Your task to perform on an android device: Show the shopping cart on walmart. Image 0: 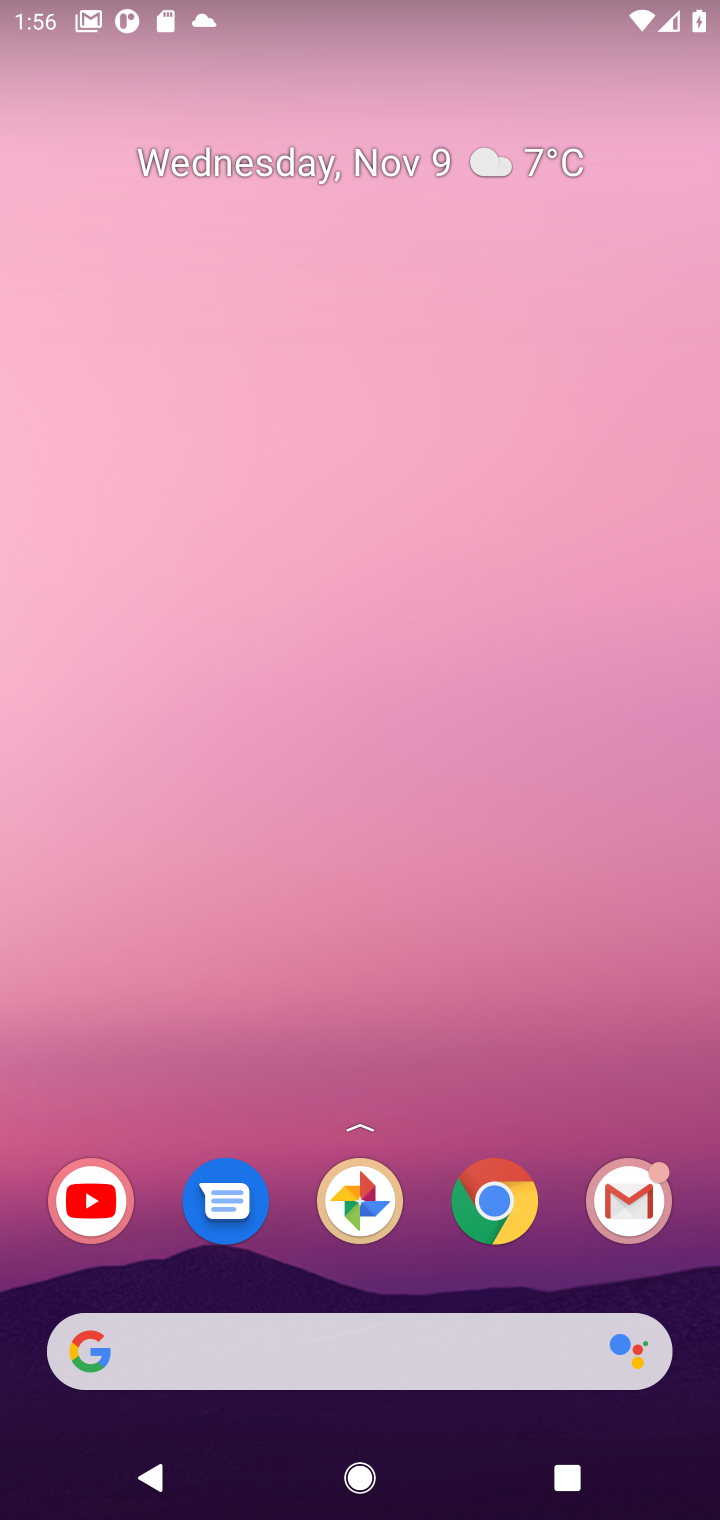
Step 0: click (302, 1347)
Your task to perform on an android device: Show the shopping cart on walmart. Image 1: 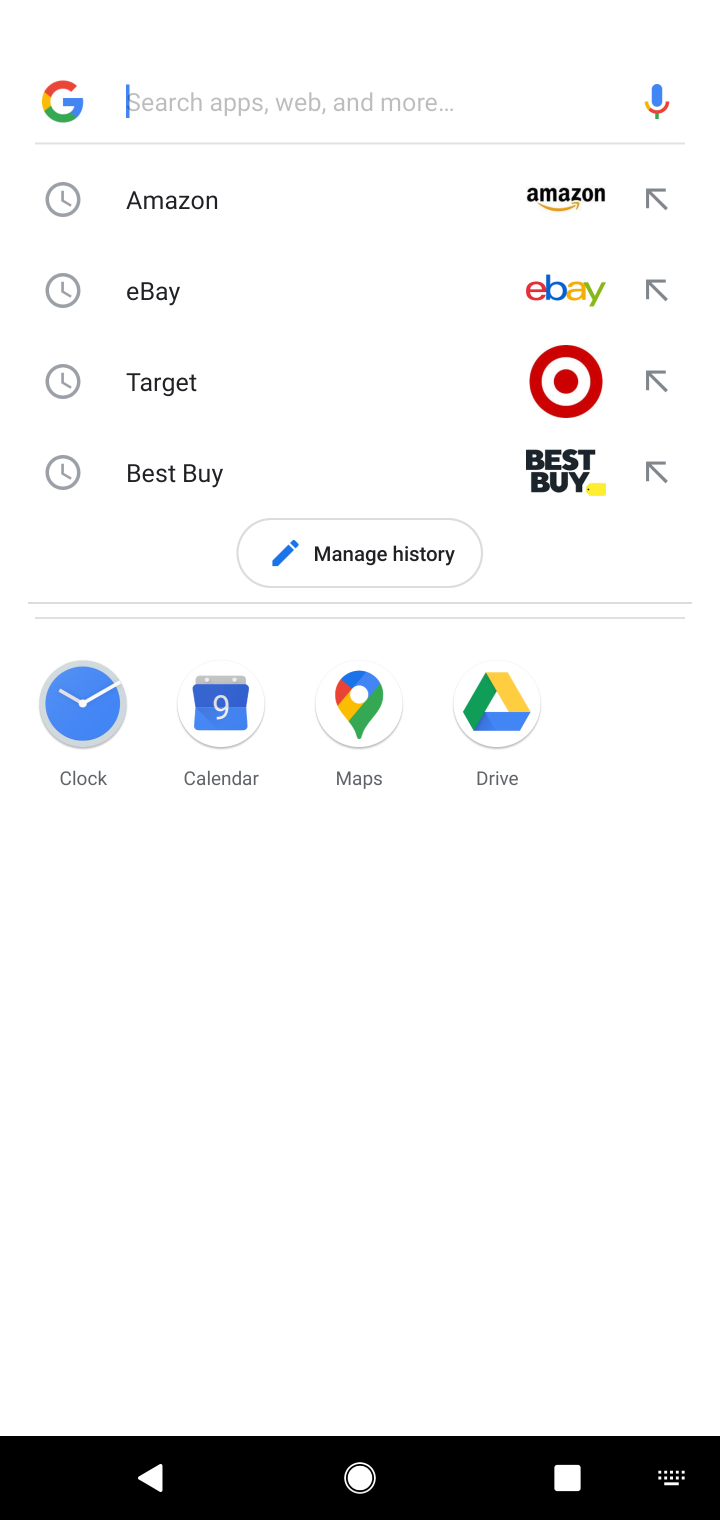
Step 1: type "walmart"
Your task to perform on an android device: Show the shopping cart on walmart. Image 2: 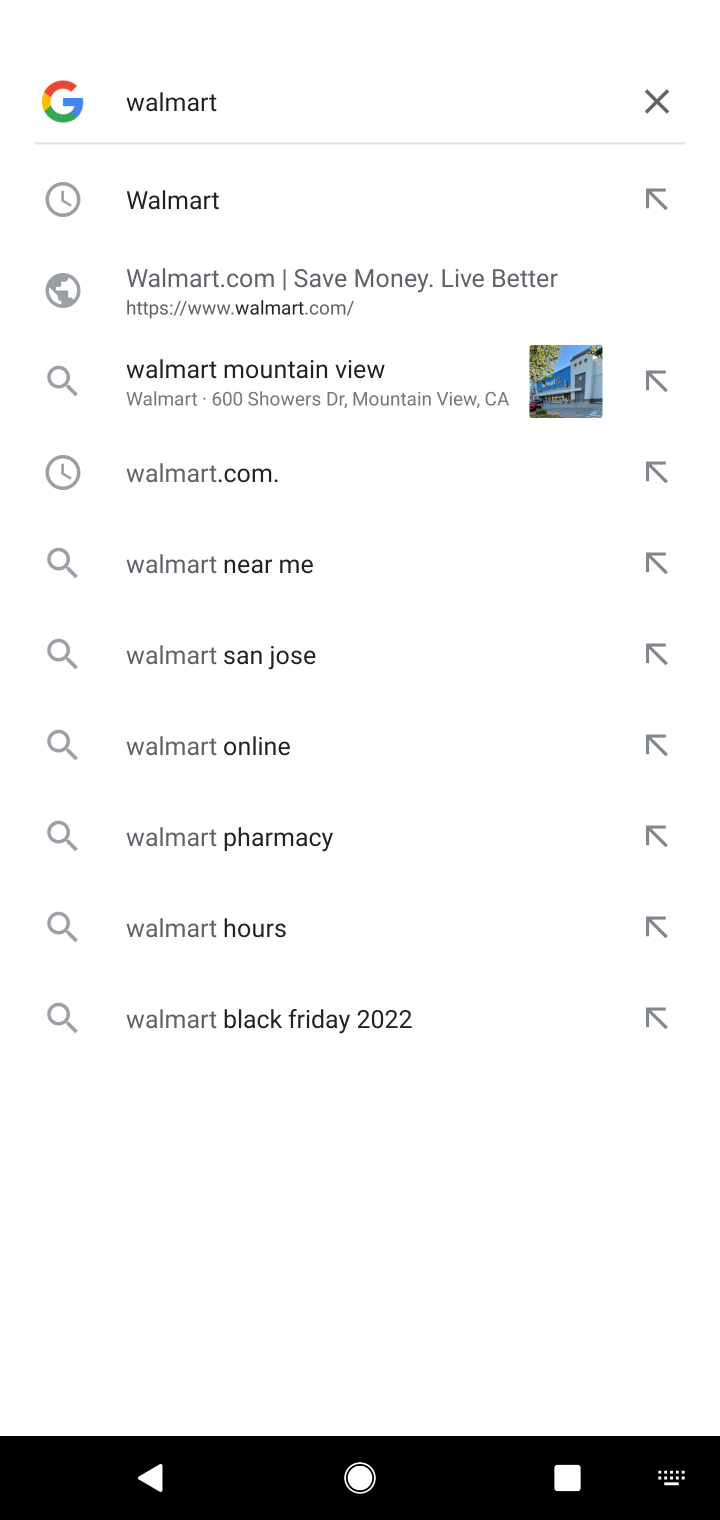
Step 2: click (173, 265)
Your task to perform on an android device: Show the shopping cart on walmart. Image 3: 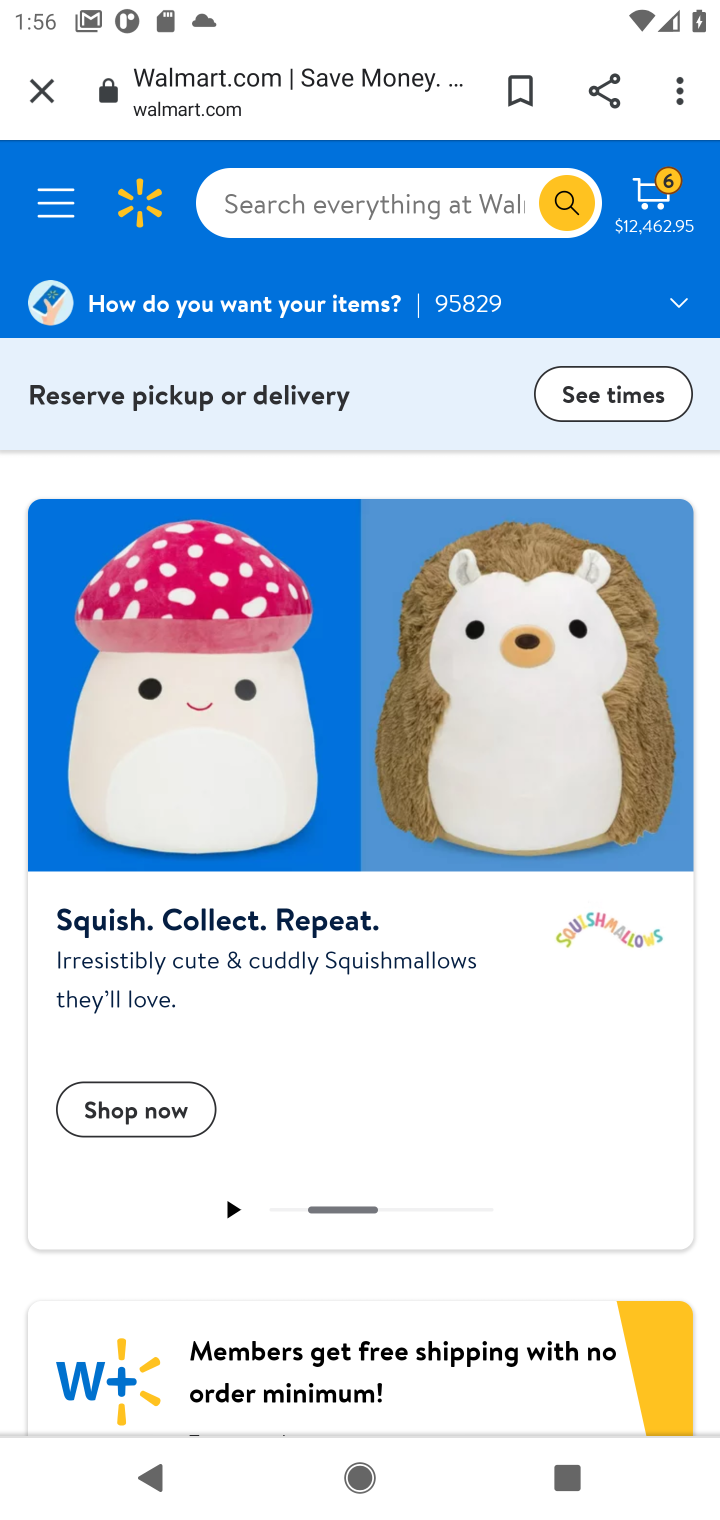
Step 3: click (656, 197)
Your task to perform on an android device: Show the shopping cart on walmart. Image 4: 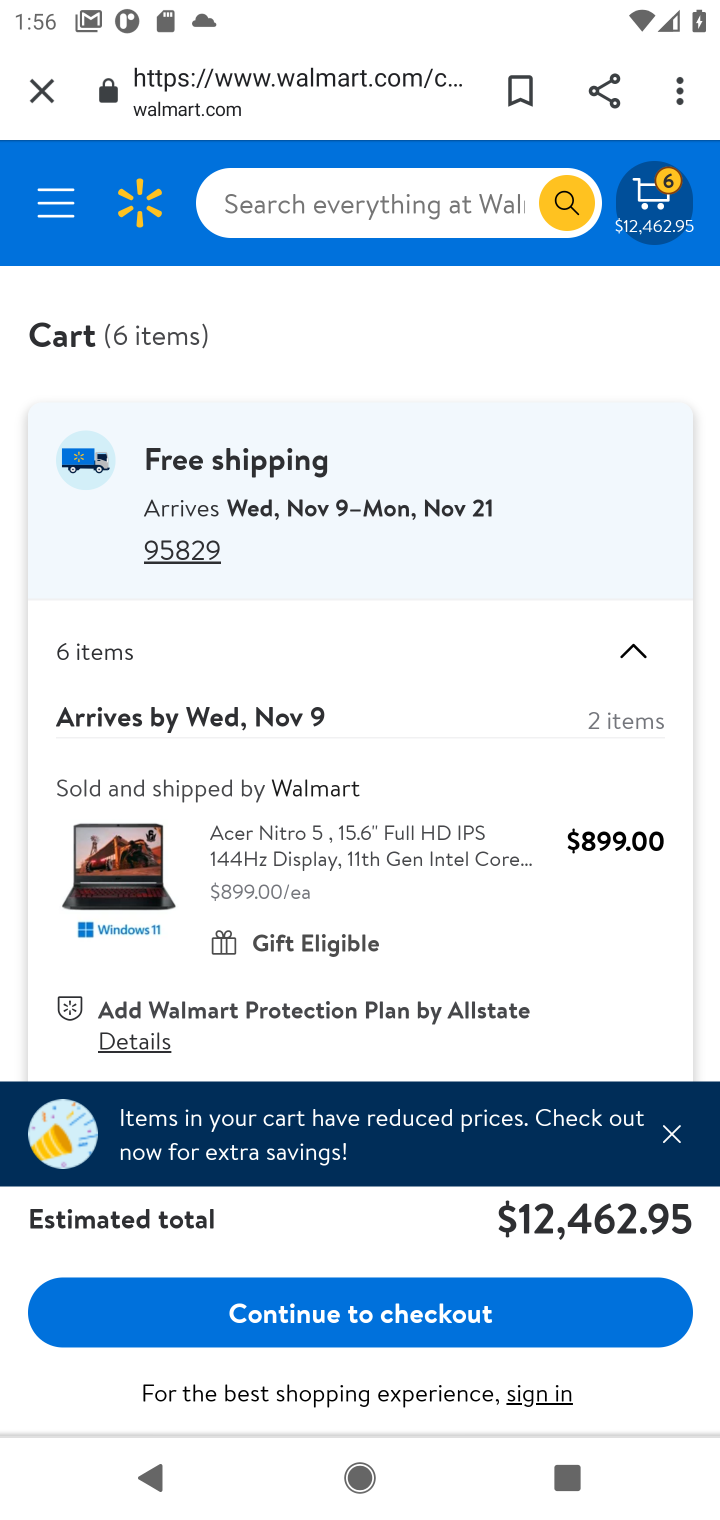
Step 4: click (675, 1135)
Your task to perform on an android device: Show the shopping cart on walmart. Image 5: 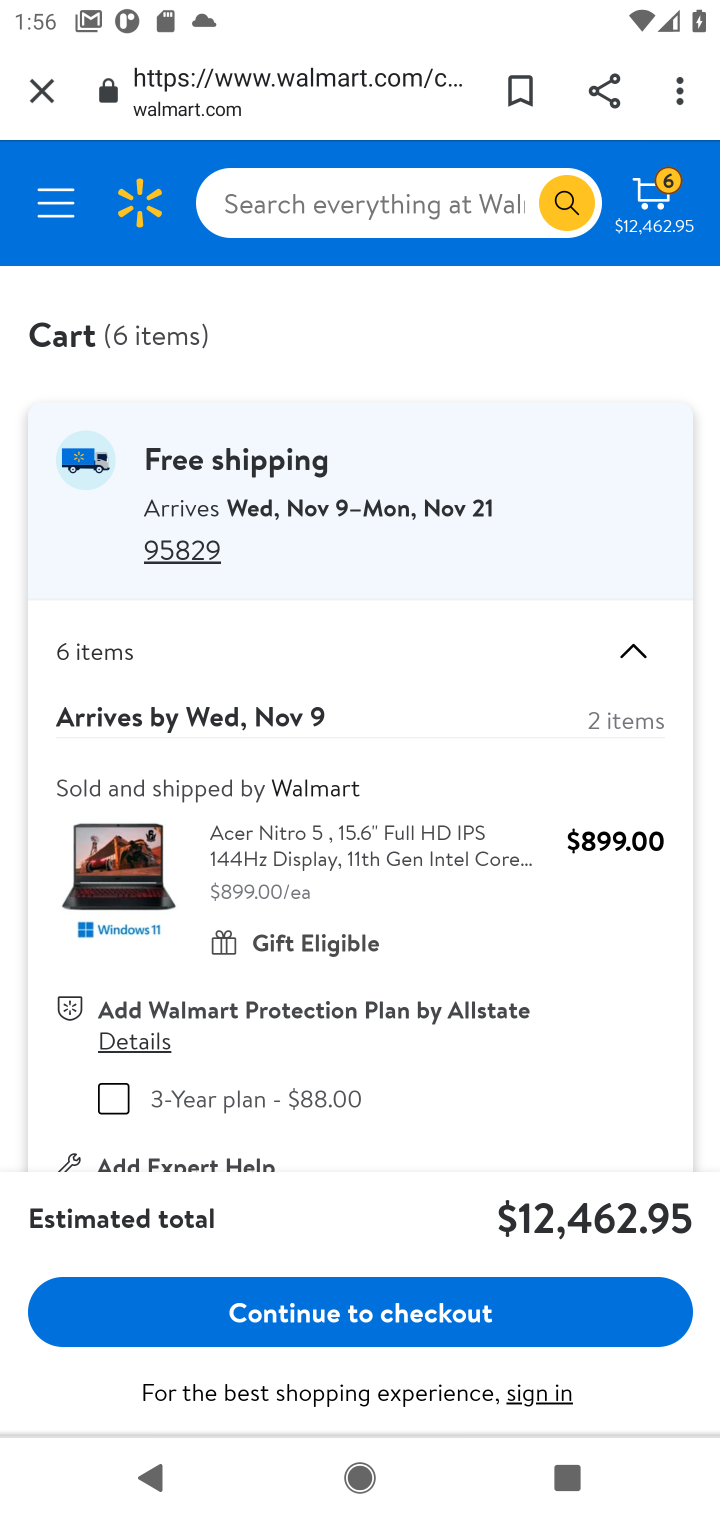
Step 5: task complete